Your task to perform on an android device: search for starred emails in the gmail app Image 0: 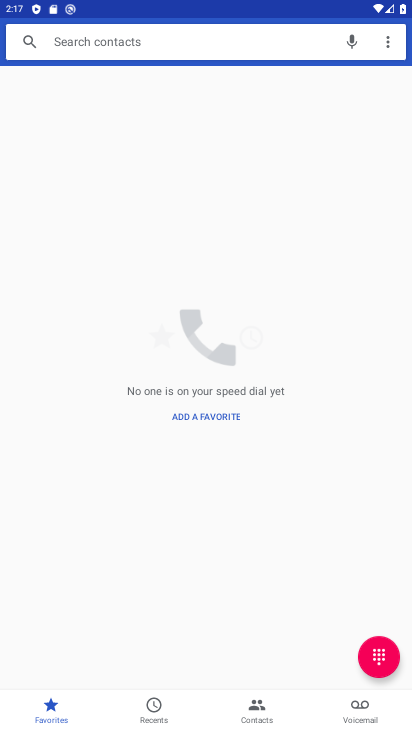
Step 0: press home button
Your task to perform on an android device: search for starred emails in the gmail app Image 1: 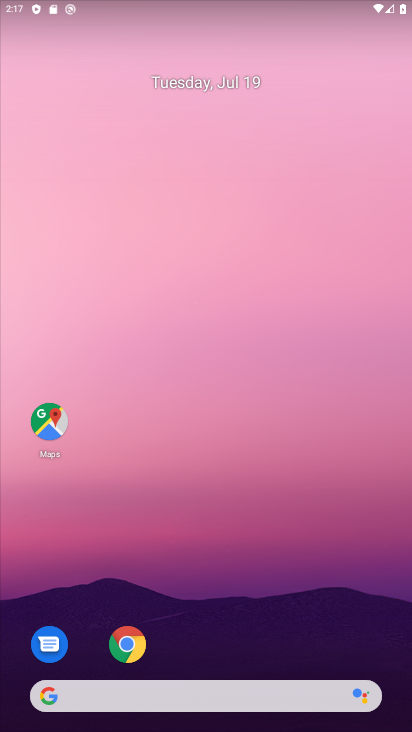
Step 1: drag from (230, 565) to (246, 234)
Your task to perform on an android device: search for starred emails in the gmail app Image 2: 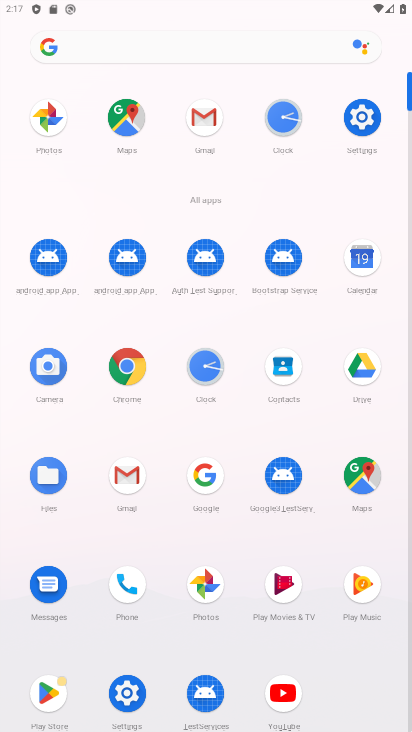
Step 2: click (204, 113)
Your task to perform on an android device: search for starred emails in the gmail app Image 3: 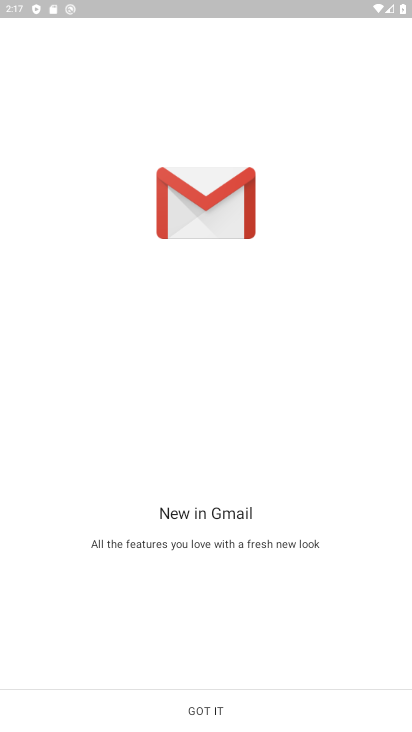
Step 3: click (198, 704)
Your task to perform on an android device: search for starred emails in the gmail app Image 4: 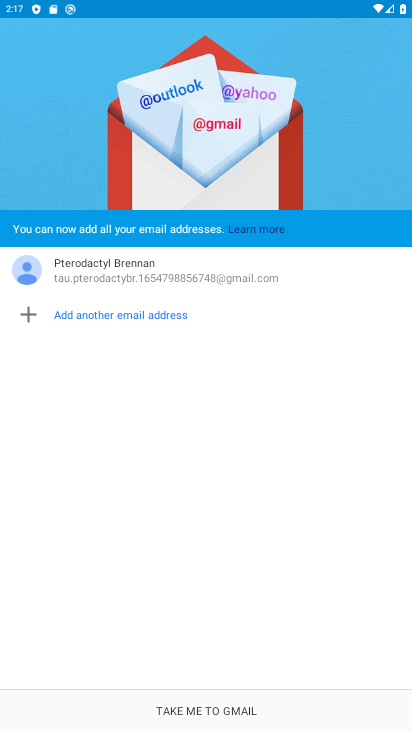
Step 4: click (215, 712)
Your task to perform on an android device: search for starred emails in the gmail app Image 5: 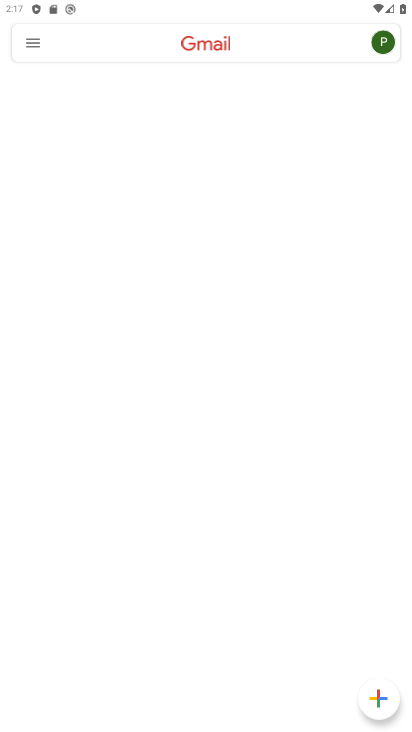
Step 5: click (34, 47)
Your task to perform on an android device: search for starred emails in the gmail app Image 6: 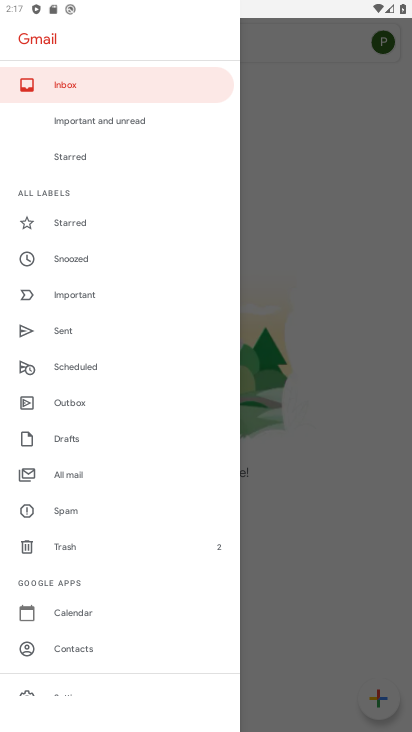
Step 6: click (67, 217)
Your task to perform on an android device: search for starred emails in the gmail app Image 7: 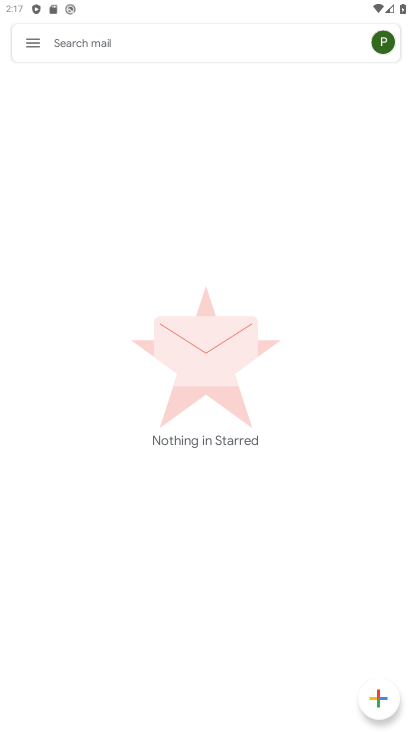
Step 7: task complete